Your task to perform on an android device: refresh tabs in the chrome app Image 0: 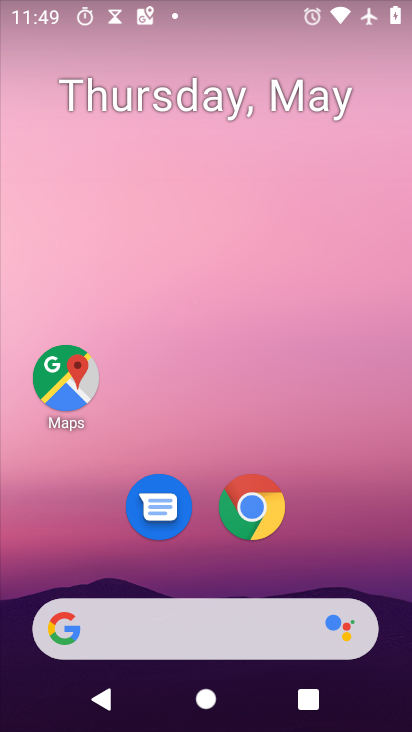
Step 0: drag from (306, 539) to (282, 3)
Your task to perform on an android device: refresh tabs in the chrome app Image 1: 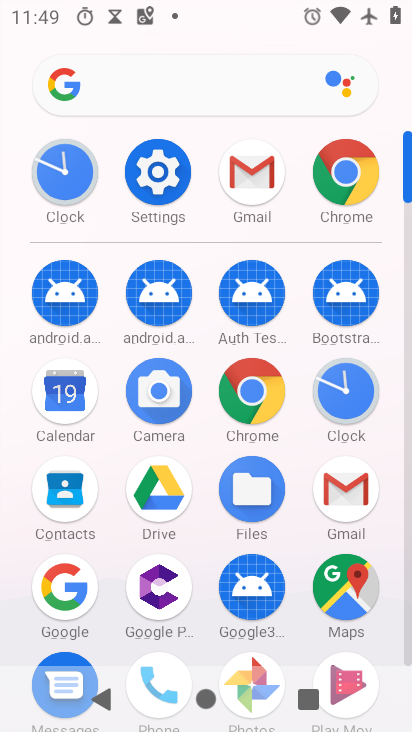
Step 1: drag from (23, 591) to (29, 268)
Your task to perform on an android device: refresh tabs in the chrome app Image 2: 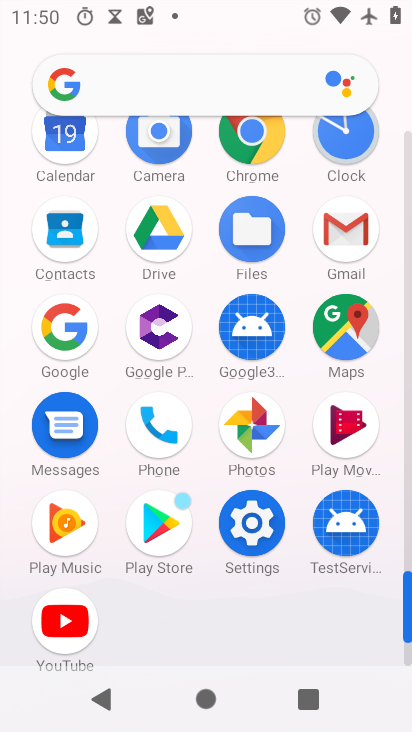
Step 2: click (251, 132)
Your task to perform on an android device: refresh tabs in the chrome app Image 3: 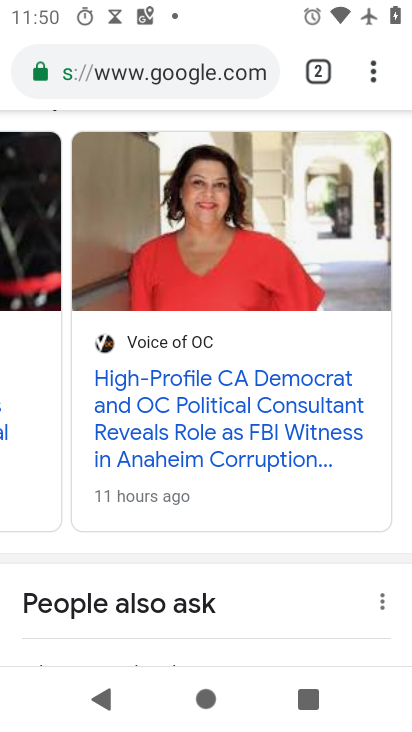
Step 3: click (372, 77)
Your task to perform on an android device: refresh tabs in the chrome app Image 4: 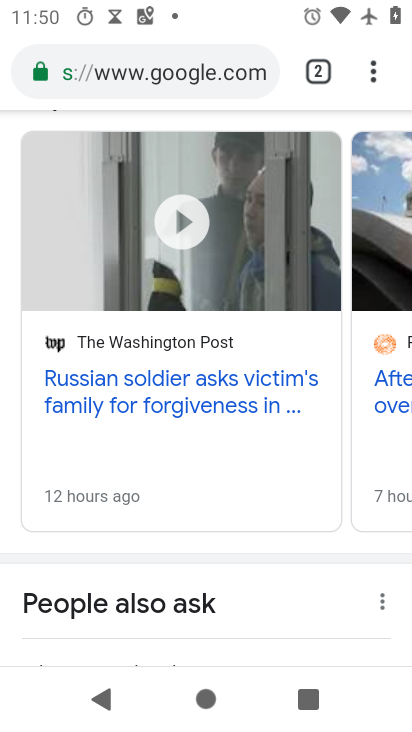
Step 4: task complete